Your task to perform on an android device: Search for seafood restaurants on Google Maps Image 0: 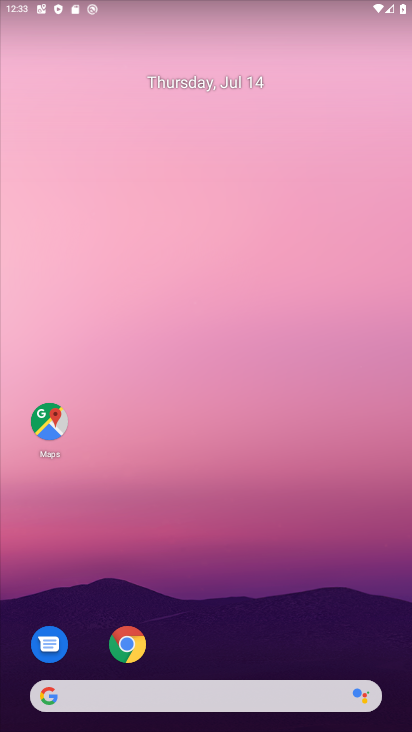
Step 0: drag from (282, 713) to (329, 45)
Your task to perform on an android device: Search for seafood restaurants on Google Maps Image 1: 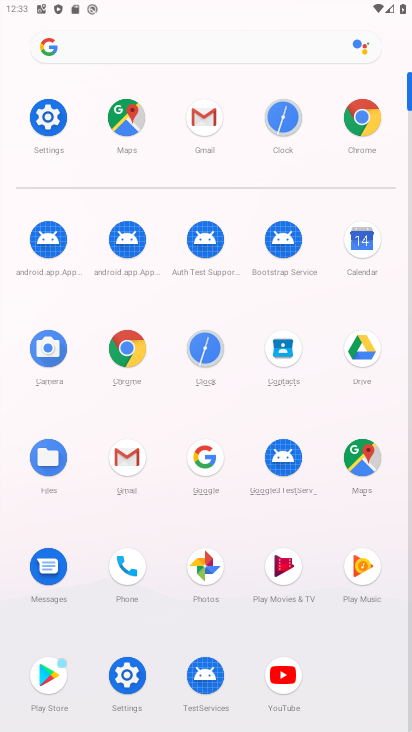
Step 1: click (357, 466)
Your task to perform on an android device: Search for seafood restaurants on Google Maps Image 2: 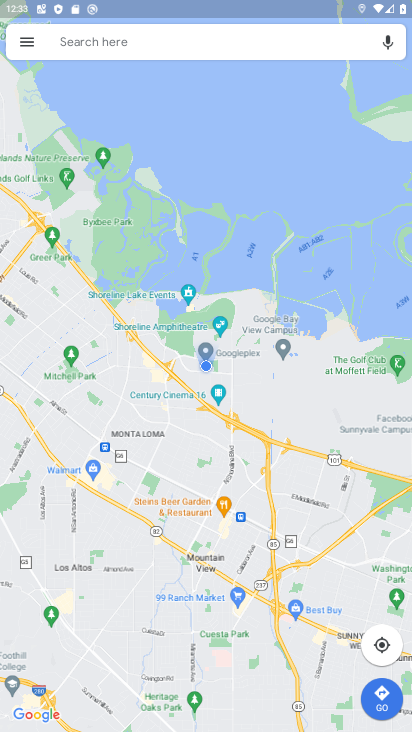
Step 2: click (96, 40)
Your task to perform on an android device: Search for seafood restaurants on Google Maps Image 3: 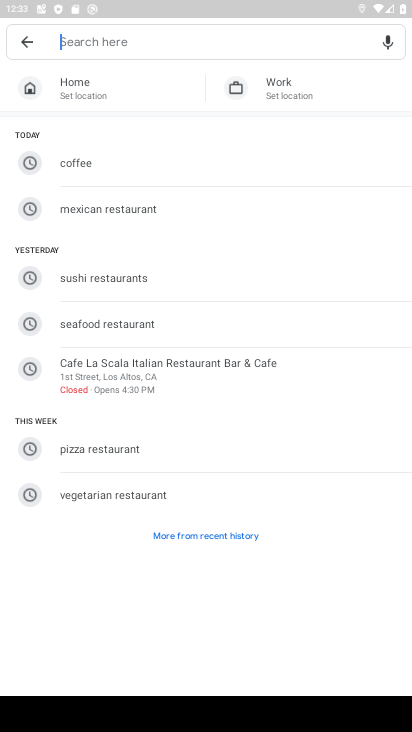
Step 3: click (259, 332)
Your task to perform on an android device: Search for seafood restaurants on Google Maps Image 4: 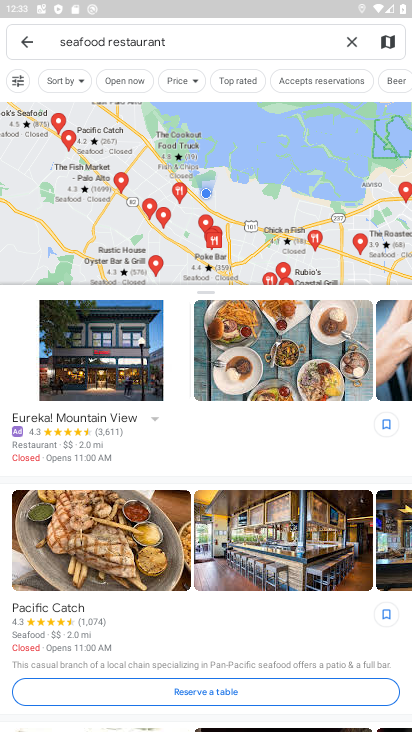
Step 4: task complete